Your task to perform on an android device: Find coffee shops on Maps Image 0: 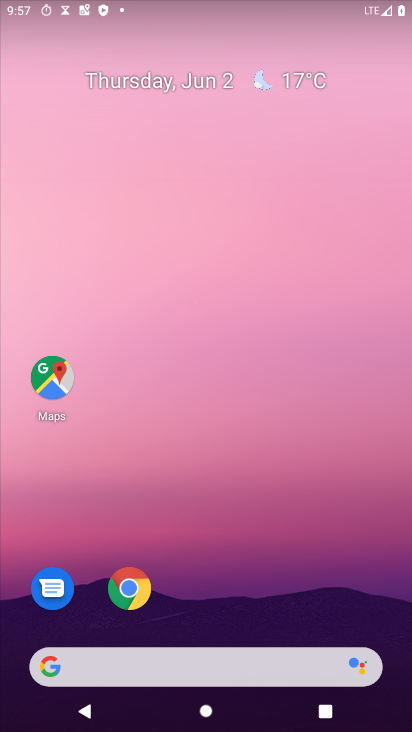
Step 0: click (33, 374)
Your task to perform on an android device: Find coffee shops on Maps Image 1: 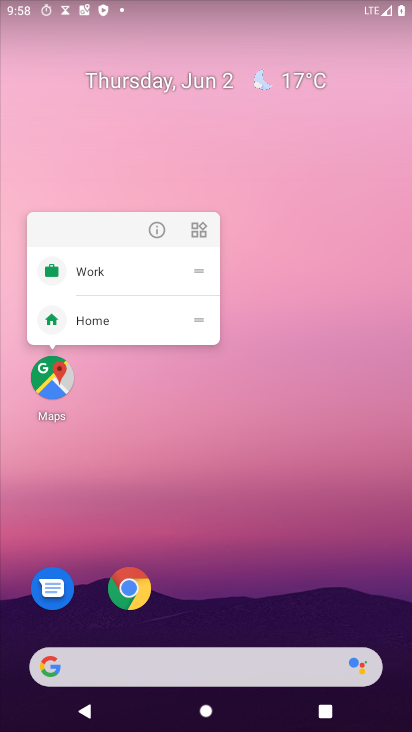
Step 1: click (58, 375)
Your task to perform on an android device: Find coffee shops on Maps Image 2: 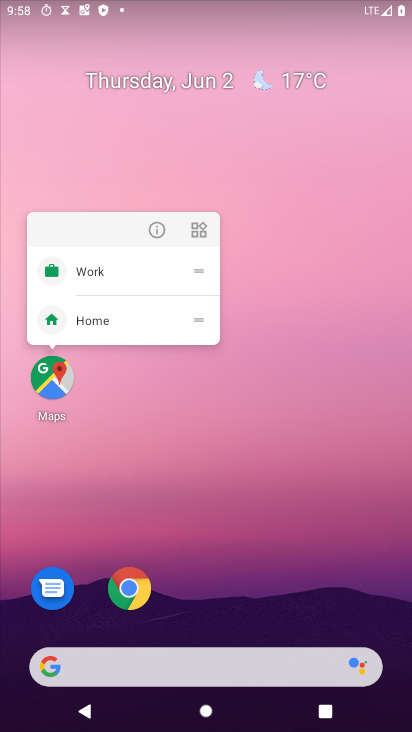
Step 2: click (50, 379)
Your task to perform on an android device: Find coffee shops on Maps Image 3: 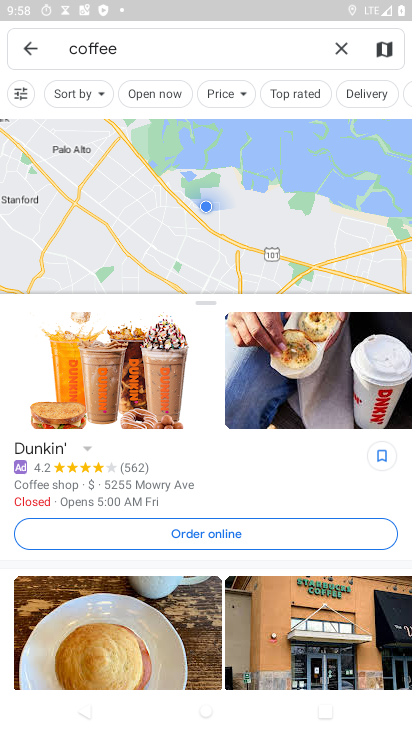
Step 3: task complete